Your task to perform on an android device: delete a single message in the gmail app Image 0: 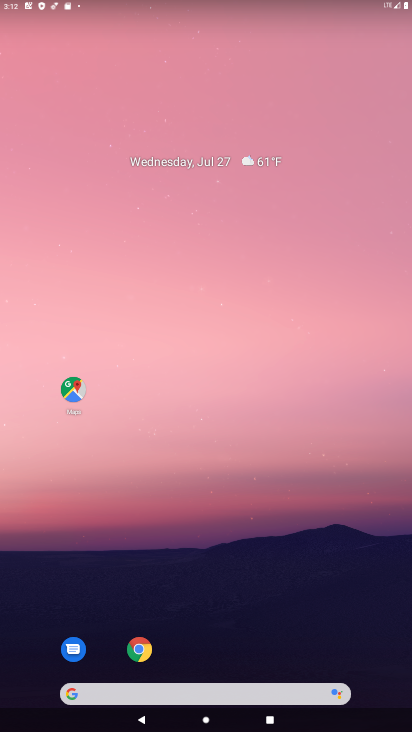
Step 0: drag from (178, 566) to (178, 307)
Your task to perform on an android device: delete a single message in the gmail app Image 1: 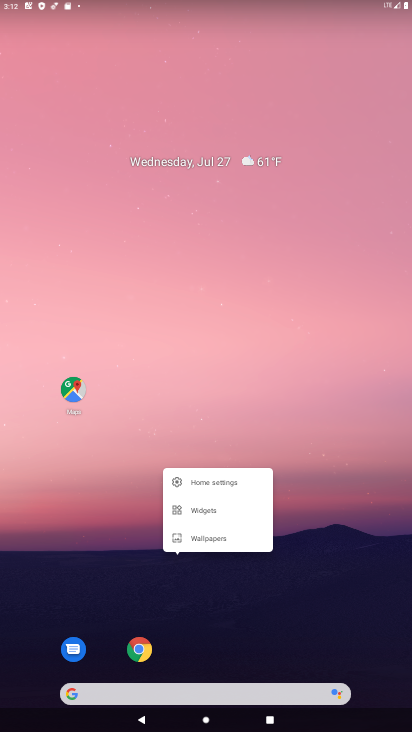
Step 1: click (191, 620)
Your task to perform on an android device: delete a single message in the gmail app Image 2: 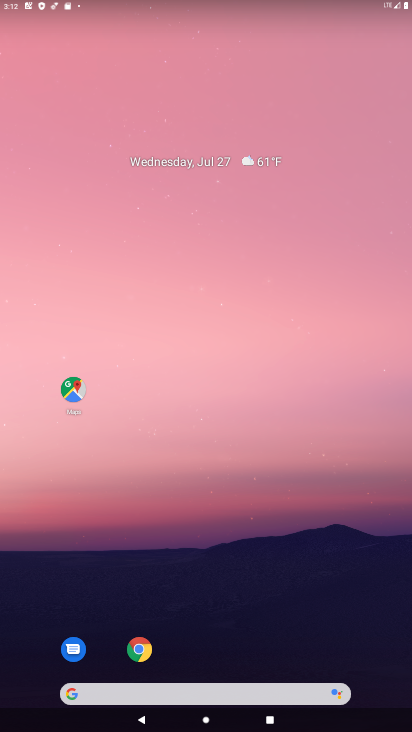
Step 2: drag from (198, 622) to (232, 205)
Your task to perform on an android device: delete a single message in the gmail app Image 3: 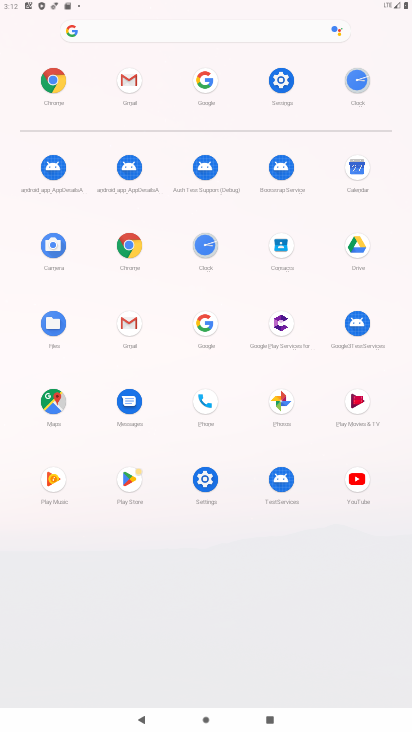
Step 3: click (126, 82)
Your task to perform on an android device: delete a single message in the gmail app Image 4: 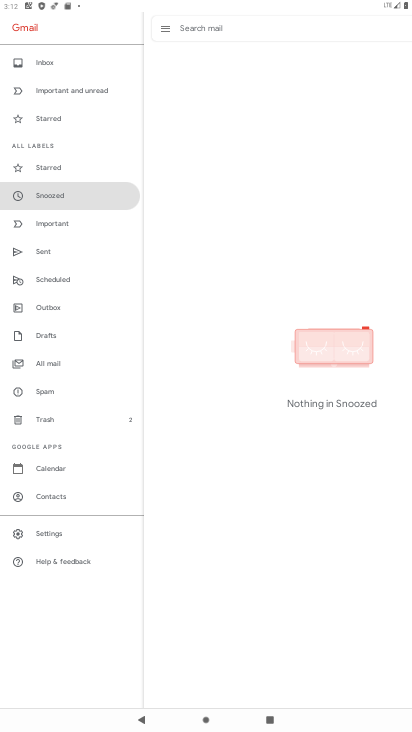
Step 4: click (58, 370)
Your task to perform on an android device: delete a single message in the gmail app Image 5: 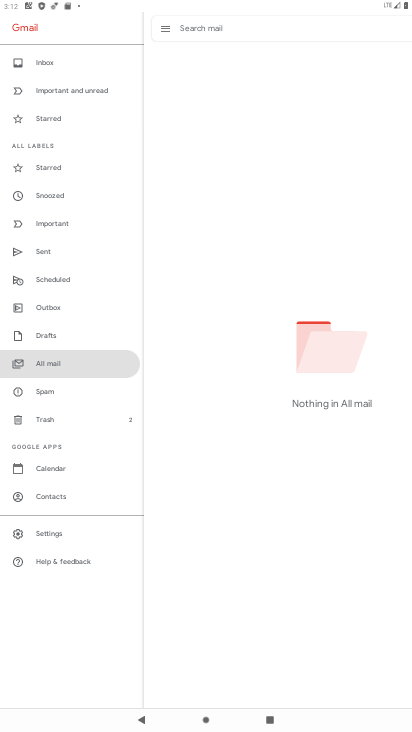
Step 5: task complete